Your task to perform on an android device: install app "Mercado Libre" Image 0: 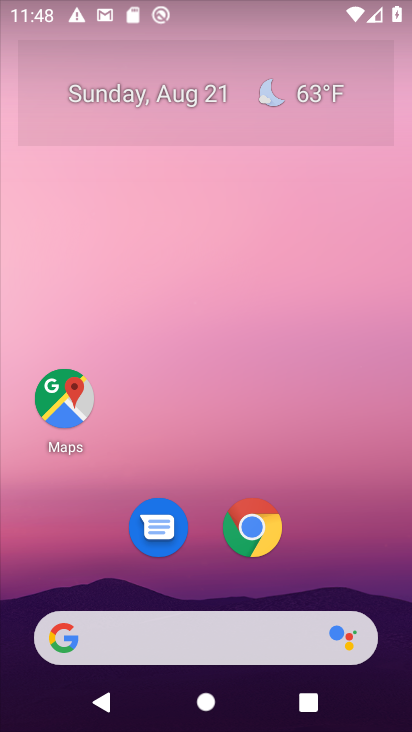
Step 0: drag from (70, 586) to (44, 58)
Your task to perform on an android device: install app "Mercado Libre" Image 1: 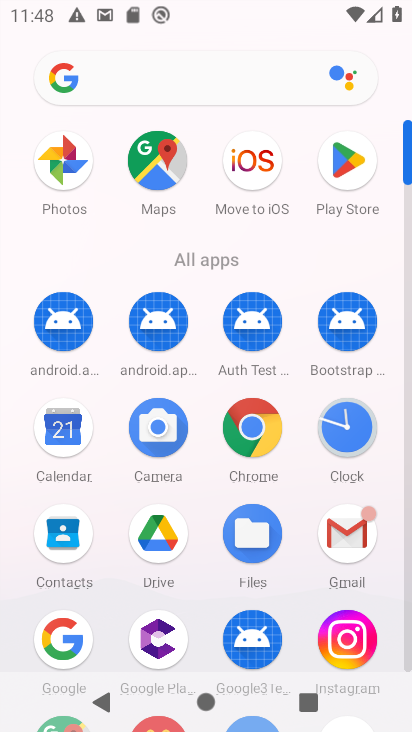
Step 1: click (361, 165)
Your task to perform on an android device: install app "Mercado Libre" Image 2: 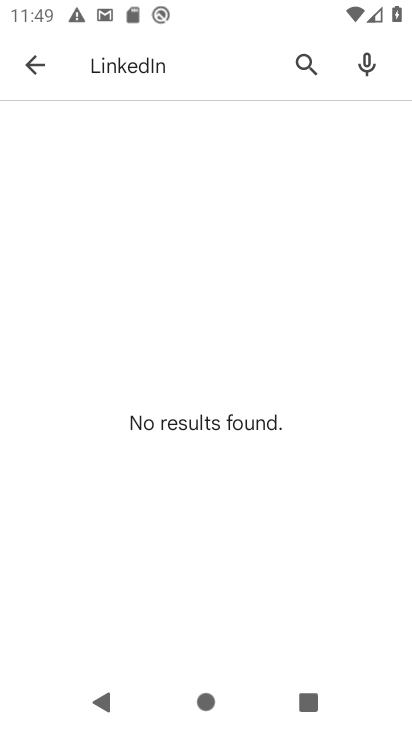
Step 2: press back button
Your task to perform on an android device: install app "Mercado Libre" Image 3: 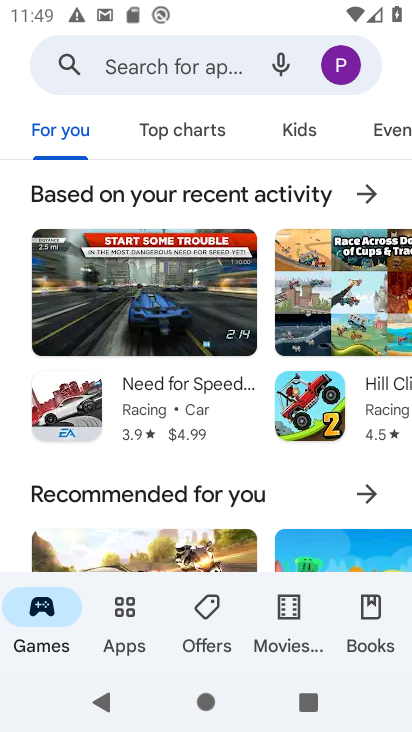
Step 3: click (241, 62)
Your task to perform on an android device: install app "Mercado Libre" Image 4: 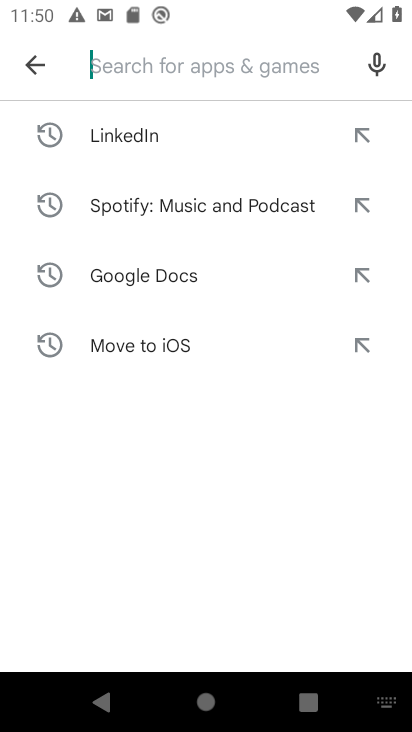
Step 4: type "Mercado Libre"
Your task to perform on an android device: install app "Mercado Libre" Image 5: 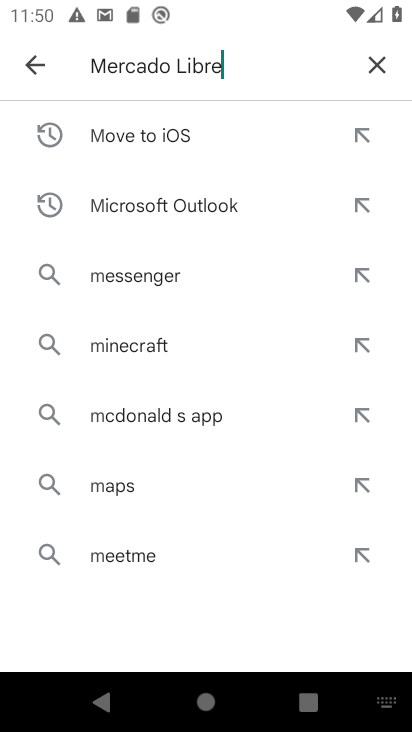
Step 5: press enter
Your task to perform on an android device: install app "Mercado Libre" Image 6: 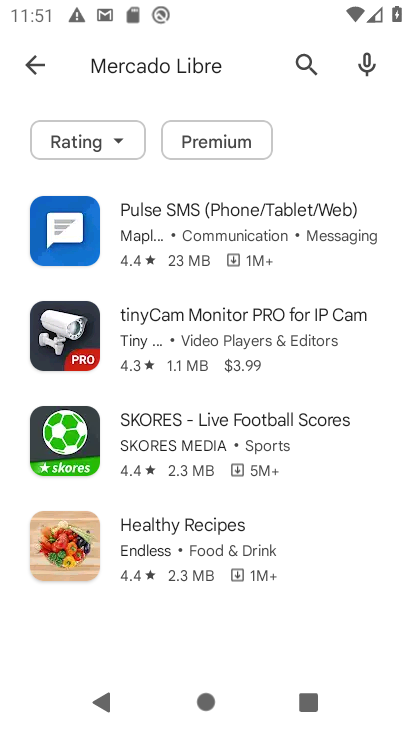
Step 6: task complete